Your task to perform on an android device: find snoozed emails in the gmail app Image 0: 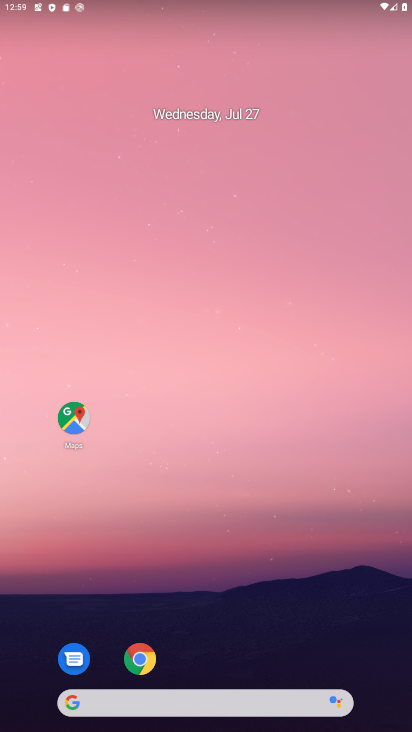
Step 0: press home button
Your task to perform on an android device: find snoozed emails in the gmail app Image 1: 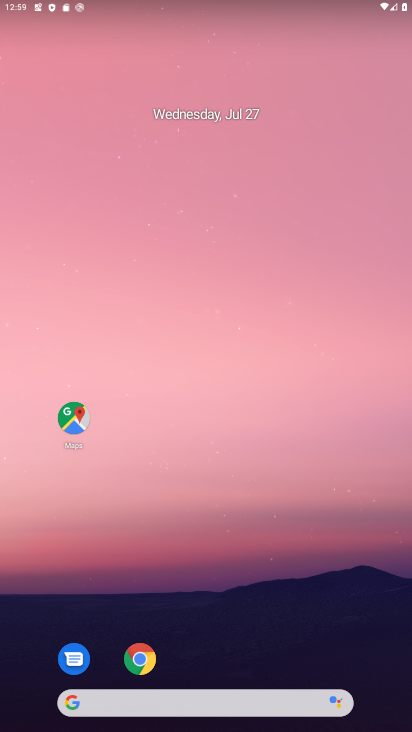
Step 1: drag from (217, 654) to (217, 81)
Your task to perform on an android device: find snoozed emails in the gmail app Image 2: 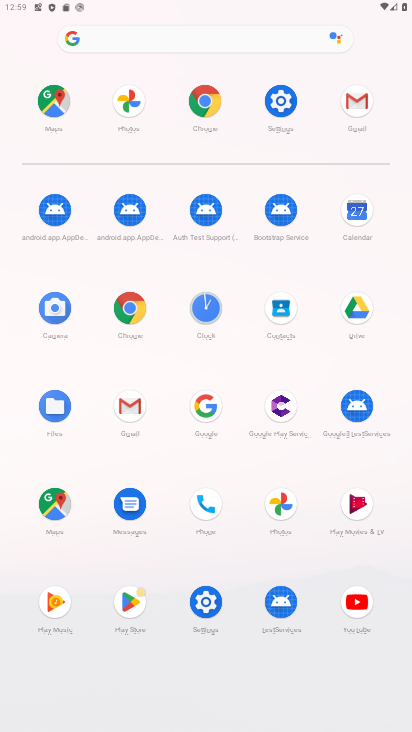
Step 2: click (129, 403)
Your task to perform on an android device: find snoozed emails in the gmail app Image 3: 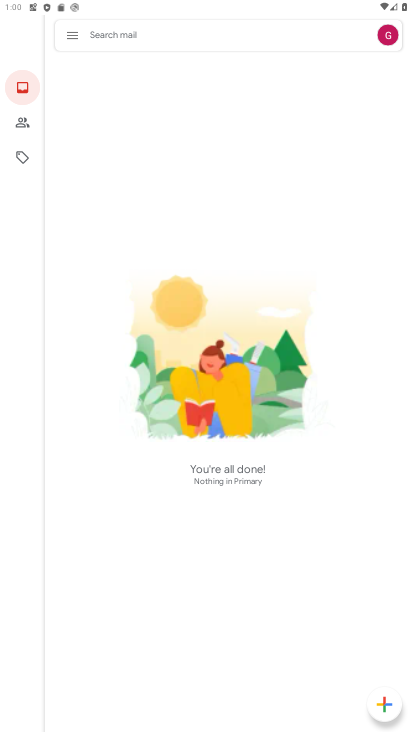
Step 3: click (68, 29)
Your task to perform on an android device: find snoozed emails in the gmail app Image 4: 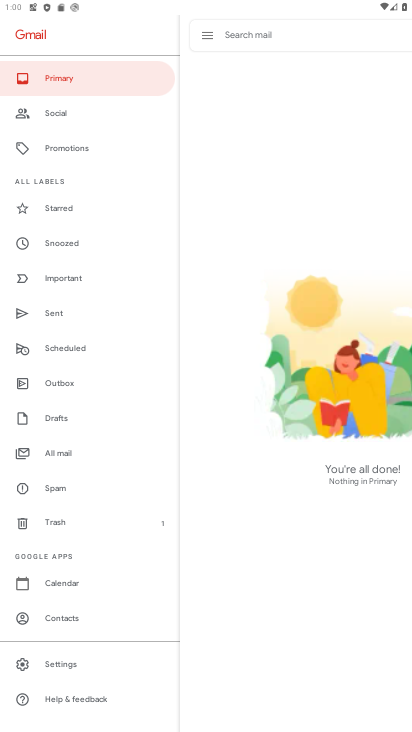
Step 4: click (82, 239)
Your task to perform on an android device: find snoozed emails in the gmail app Image 5: 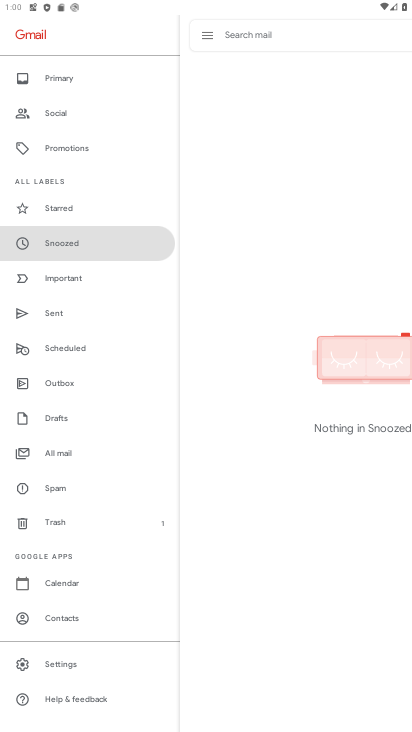
Step 5: task complete